Your task to perform on an android device: open device folders in google photos Image 0: 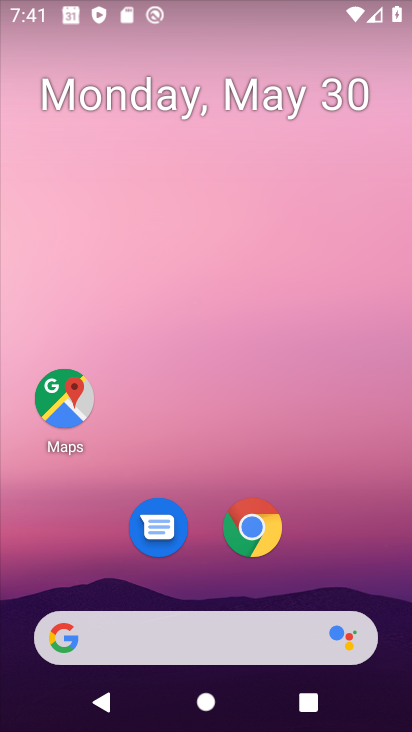
Step 0: drag from (208, 574) to (227, 39)
Your task to perform on an android device: open device folders in google photos Image 1: 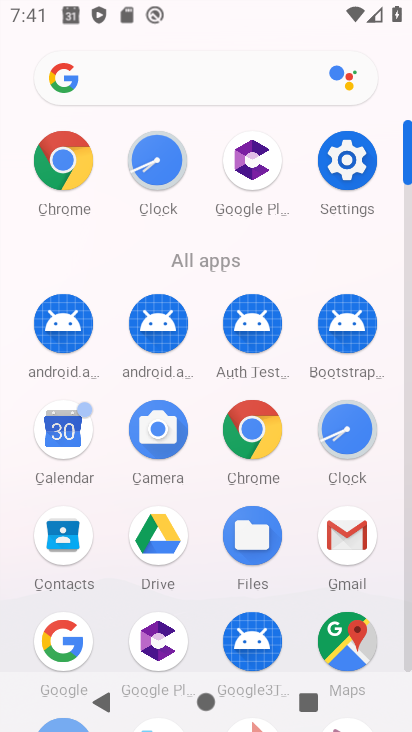
Step 1: drag from (120, 613) to (138, 233)
Your task to perform on an android device: open device folders in google photos Image 2: 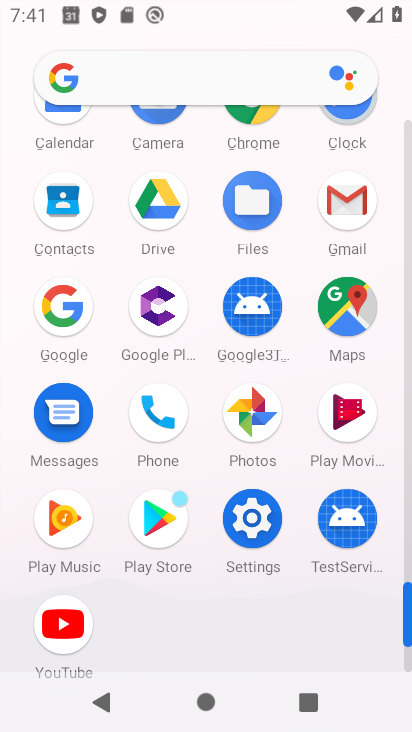
Step 2: click (261, 417)
Your task to perform on an android device: open device folders in google photos Image 3: 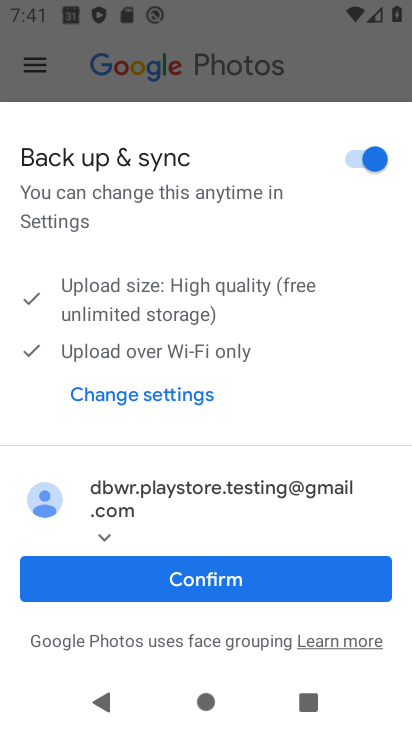
Step 3: click (236, 586)
Your task to perform on an android device: open device folders in google photos Image 4: 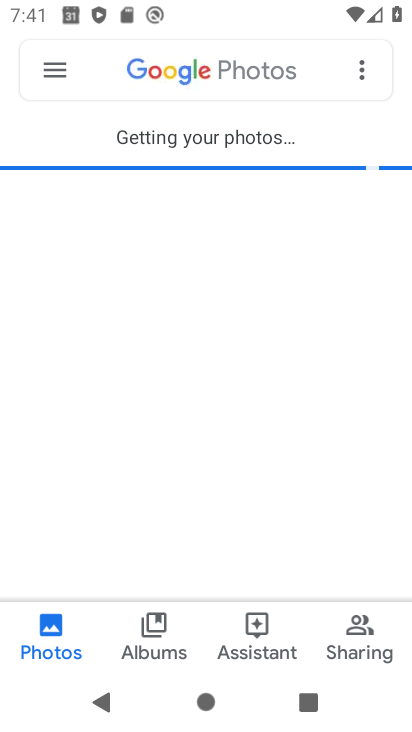
Step 4: click (44, 60)
Your task to perform on an android device: open device folders in google photos Image 5: 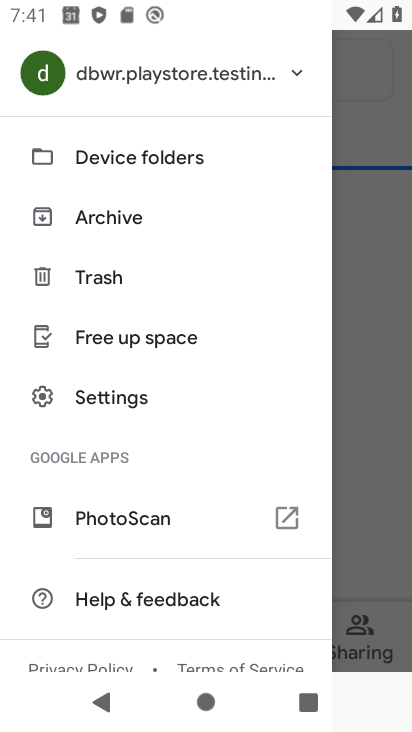
Step 5: click (119, 164)
Your task to perform on an android device: open device folders in google photos Image 6: 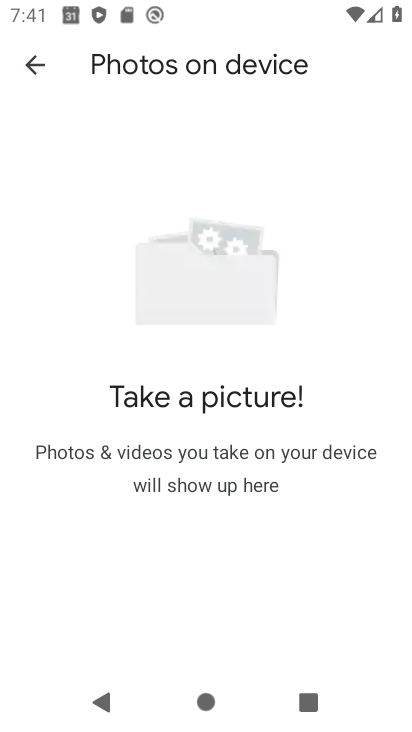
Step 6: task complete